Your task to perform on an android device: change your default location settings in chrome Image 0: 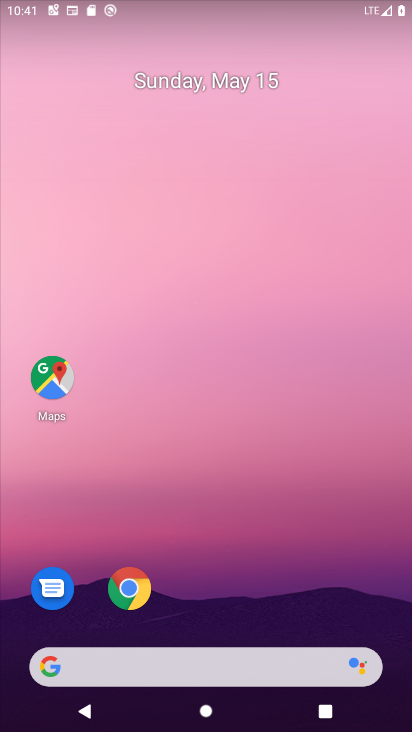
Step 0: click (126, 588)
Your task to perform on an android device: change your default location settings in chrome Image 1: 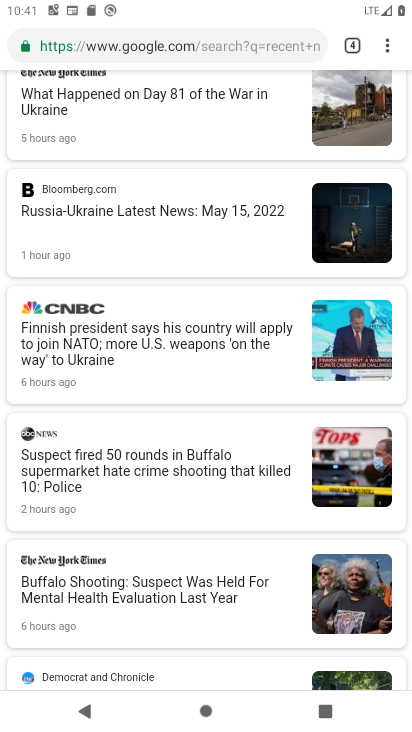
Step 1: click (397, 48)
Your task to perform on an android device: change your default location settings in chrome Image 2: 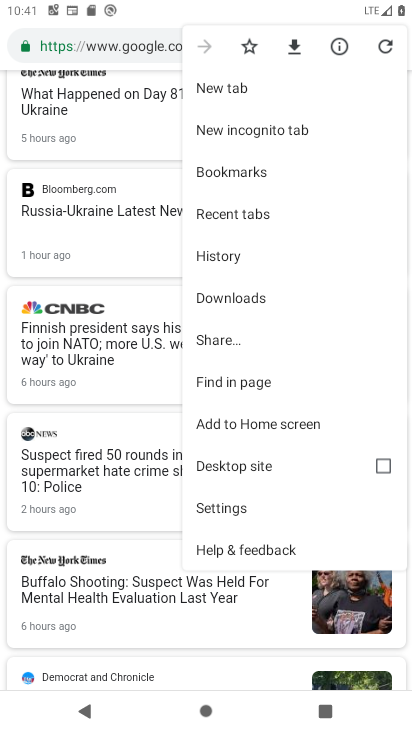
Step 2: click (237, 508)
Your task to perform on an android device: change your default location settings in chrome Image 3: 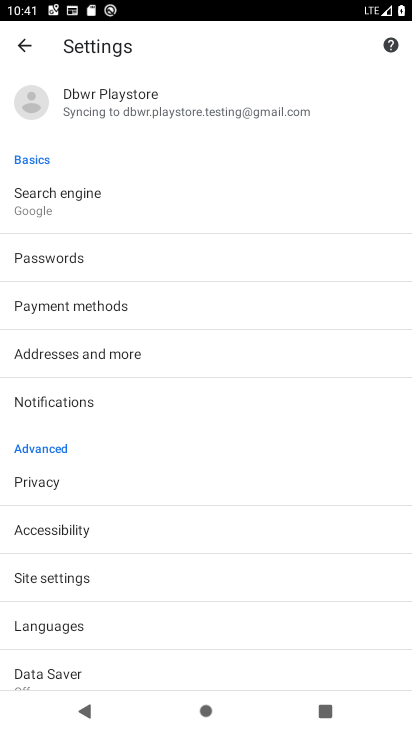
Step 3: click (58, 571)
Your task to perform on an android device: change your default location settings in chrome Image 4: 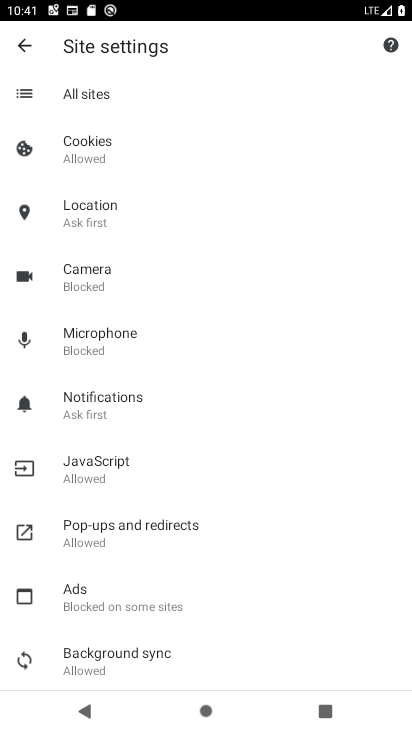
Step 4: click (105, 208)
Your task to perform on an android device: change your default location settings in chrome Image 5: 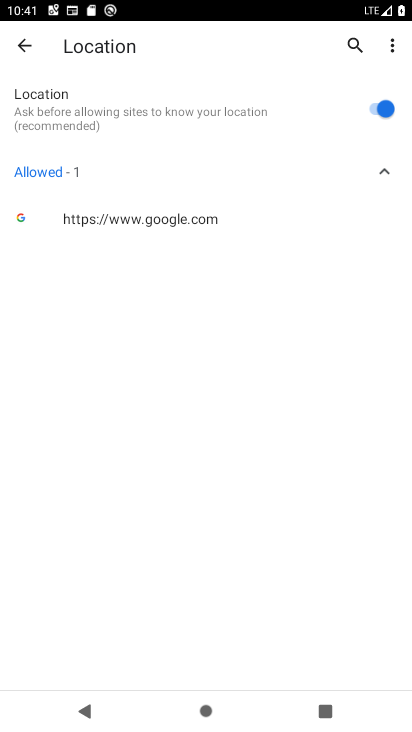
Step 5: click (383, 107)
Your task to perform on an android device: change your default location settings in chrome Image 6: 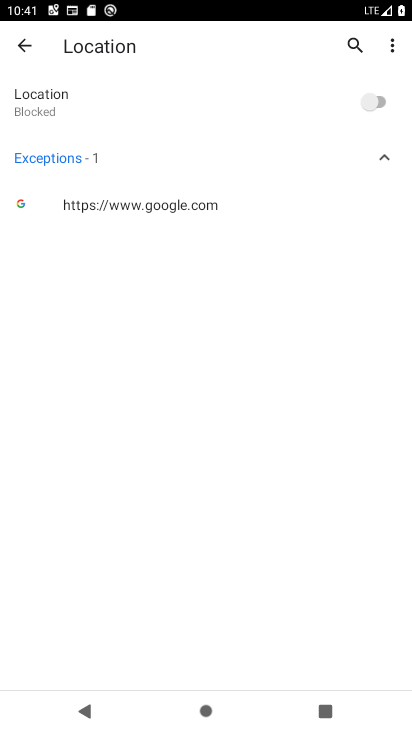
Step 6: task complete